Your task to perform on an android device: turn off notifications settings in the gmail app Image 0: 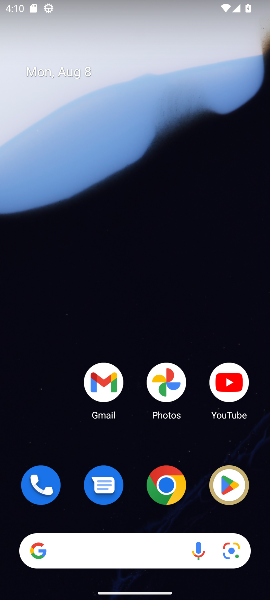
Step 0: drag from (208, 564) to (184, 197)
Your task to perform on an android device: turn off notifications settings in the gmail app Image 1: 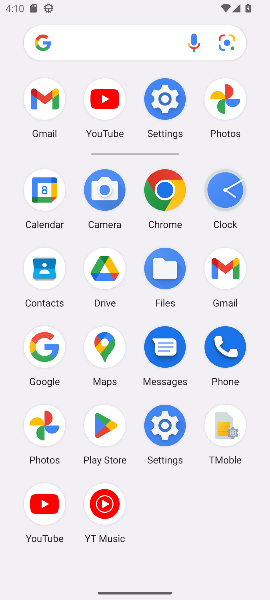
Step 1: click (230, 273)
Your task to perform on an android device: turn off notifications settings in the gmail app Image 2: 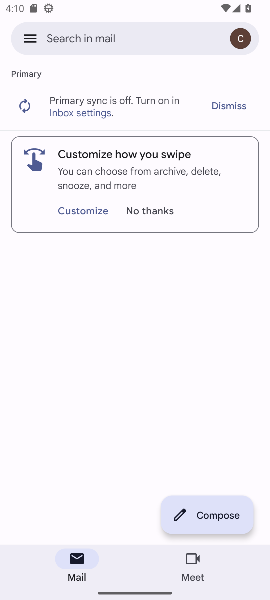
Step 2: click (31, 42)
Your task to perform on an android device: turn off notifications settings in the gmail app Image 3: 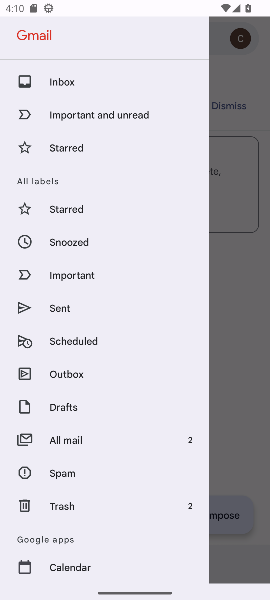
Step 3: drag from (92, 459) to (106, 255)
Your task to perform on an android device: turn off notifications settings in the gmail app Image 4: 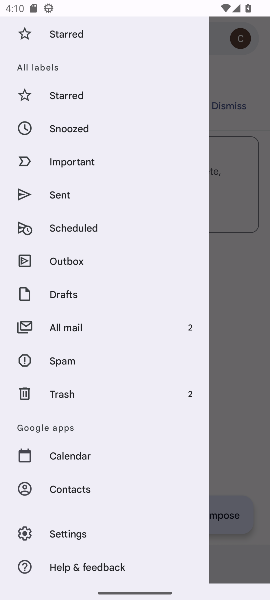
Step 4: drag from (111, 372) to (91, 174)
Your task to perform on an android device: turn off notifications settings in the gmail app Image 5: 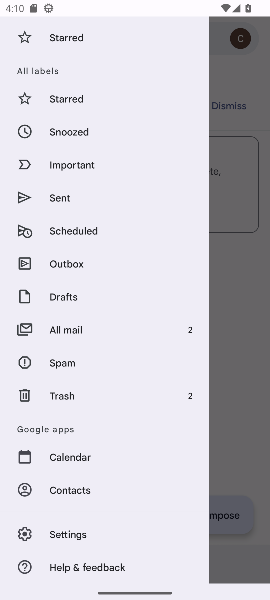
Step 5: click (65, 534)
Your task to perform on an android device: turn off notifications settings in the gmail app Image 6: 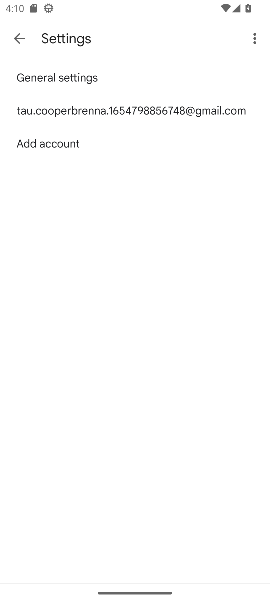
Step 6: click (51, 120)
Your task to perform on an android device: turn off notifications settings in the gmail app Image 7: 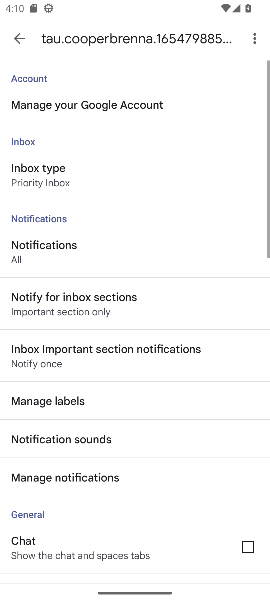
Step 7: click (36, 238)
Your task to perform on an android device: turn off notifications settings in the gmail app Image 8: 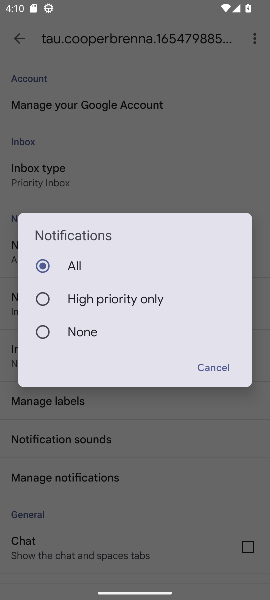
Step 8: click (37, 289)
Your task to perform on an android device: turn off notifications settings in the gmail app Image 9: 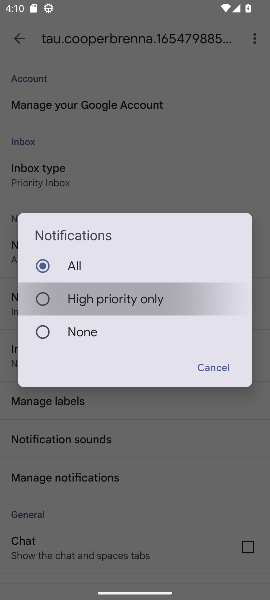
Step 9: click (41, 291)
Your task to perform on an android device: turn off notifications settings in the gmail app Image 10: 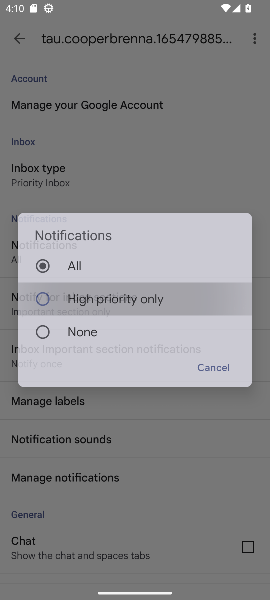
Step 10: click (41, 291)
Your task to perform on an android device: turn off notifications settings in the gmail app Image 11: 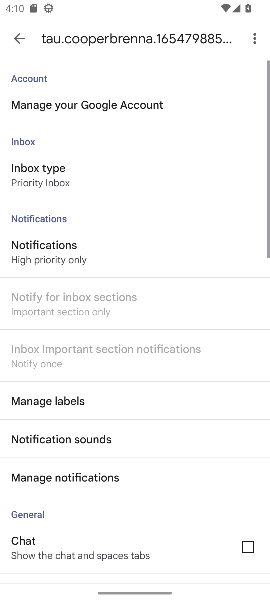
Step 11: click (40, 257)
Your task to perform on an android device: turn off notifications settings in the gmail app Image 12: 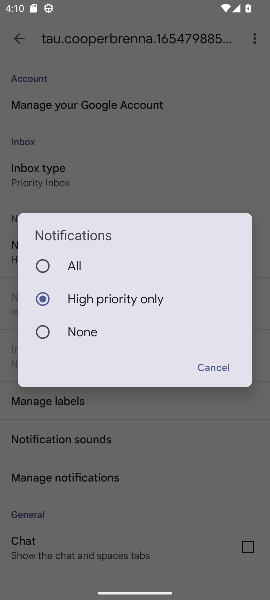
Step 12: click (46, 333)
Your task to perform on an android device: turn off notifications settings in the gmail app Image 13: 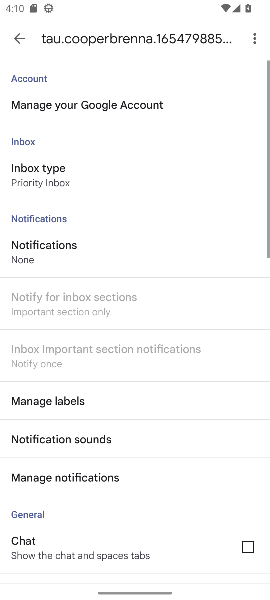
Step 13: task complete